Your task to perform on an android device: uninstall "Messenger Lite" Image 0: 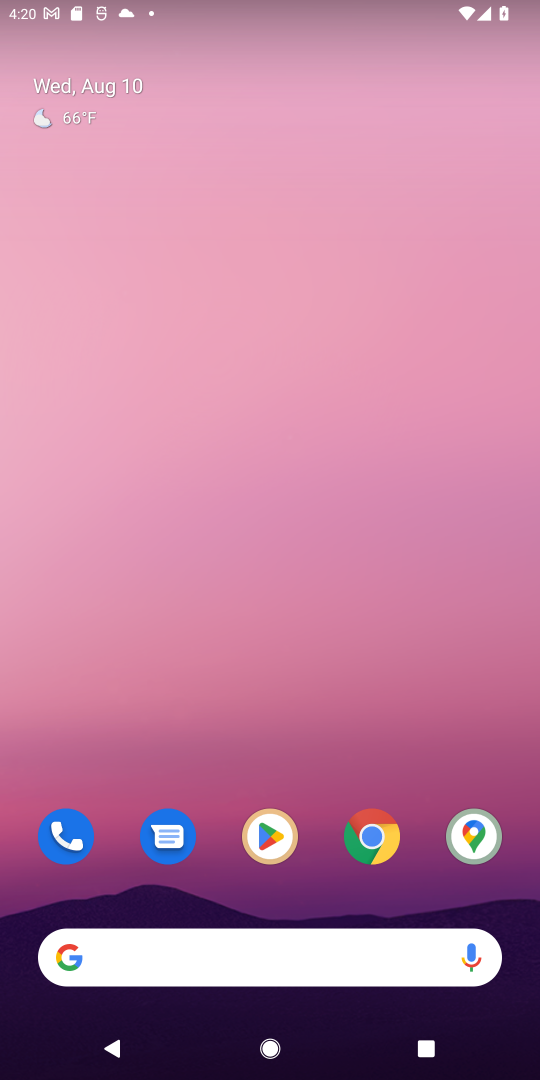
Step 0: drag from (187, 891) to (320, 210)
Your task to perform on an android device: uninstall "Messenger Lite" Image 1: 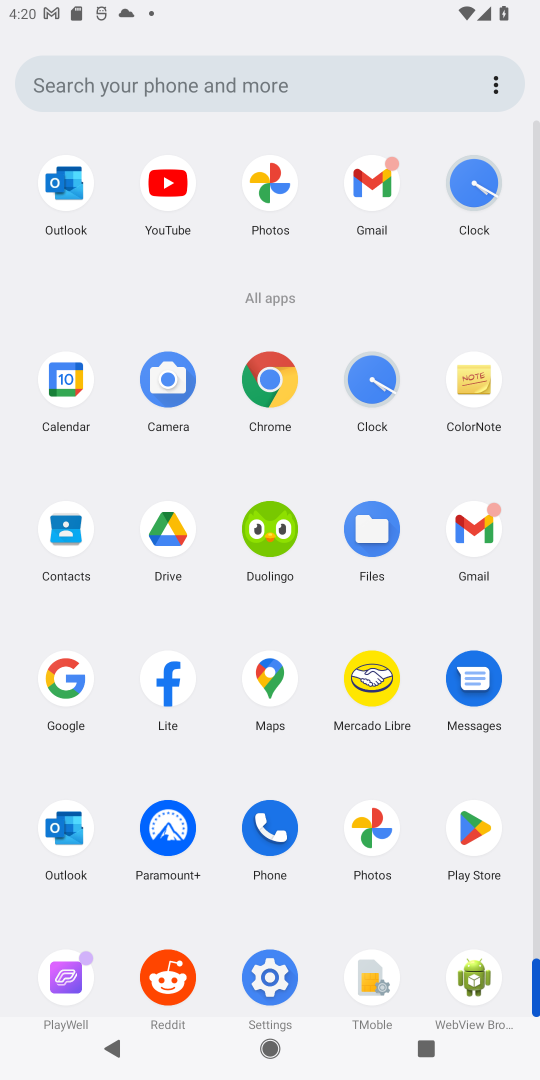
Step 1: drag from (163, 893) to (315, 257)
Your task to perform on an android device: uninstall "Messenger Lite" Image 2: 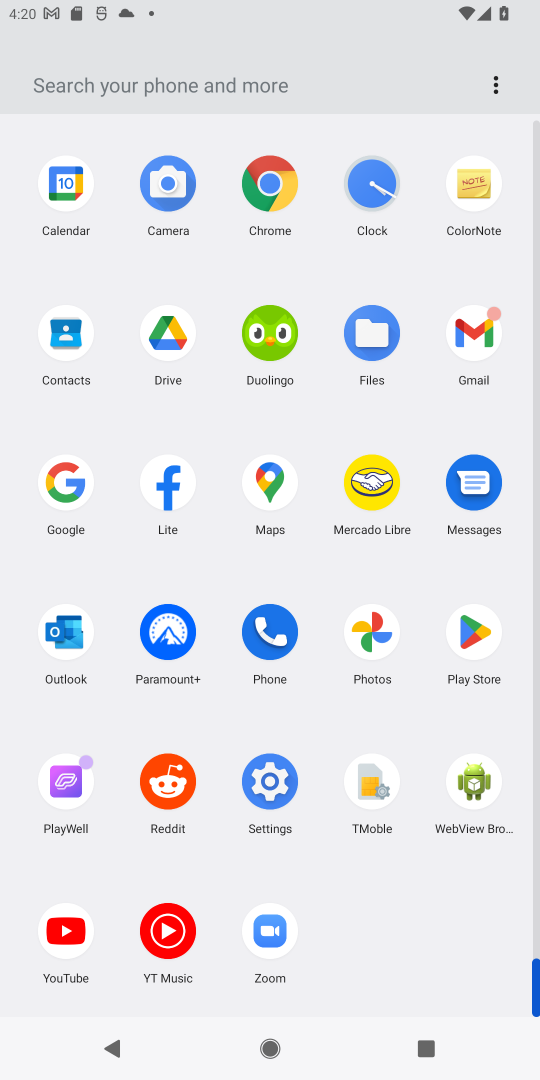
Step 2: click (479, 618)
Your task to perform on an android device: uninstall "Messenger Lite" Image 3: 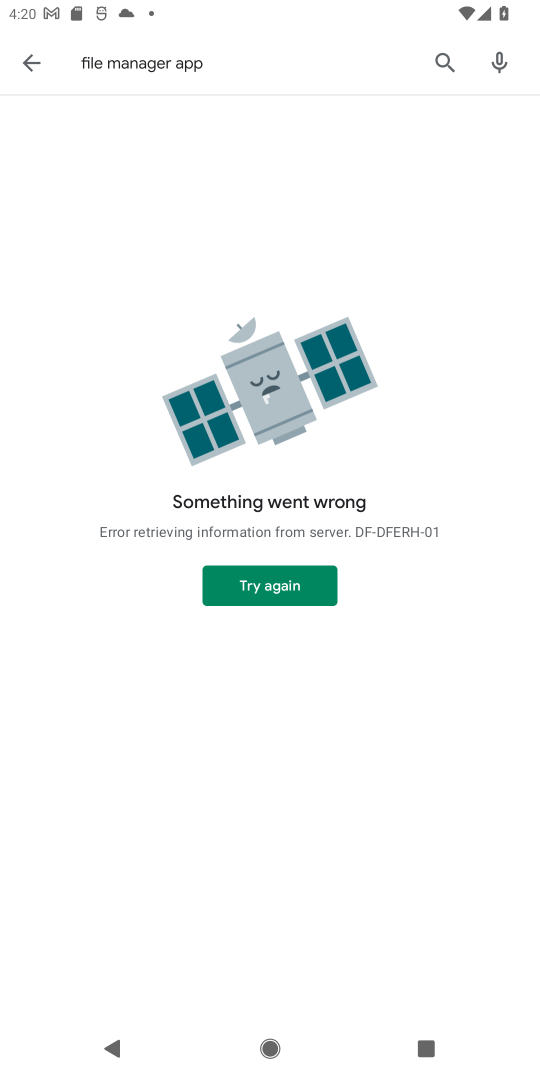
Step 3: click (21, 51)
Your task to perform on an android device: uninstall "Messenger Lite" Image 4: 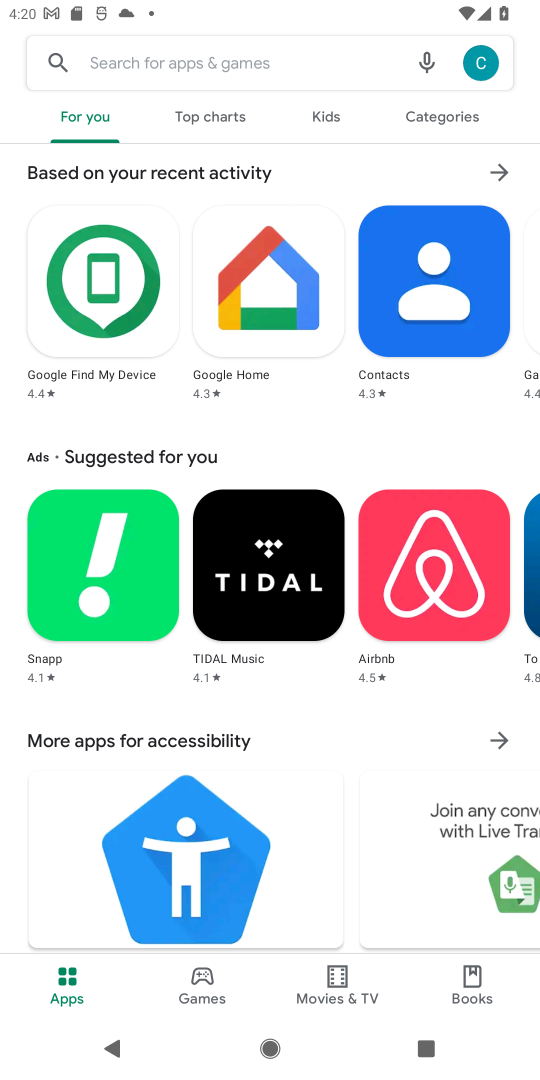
Step 4: click (225, 45)
Your task to perform on an android device: uninstall "Messenger Lite" Image 5: 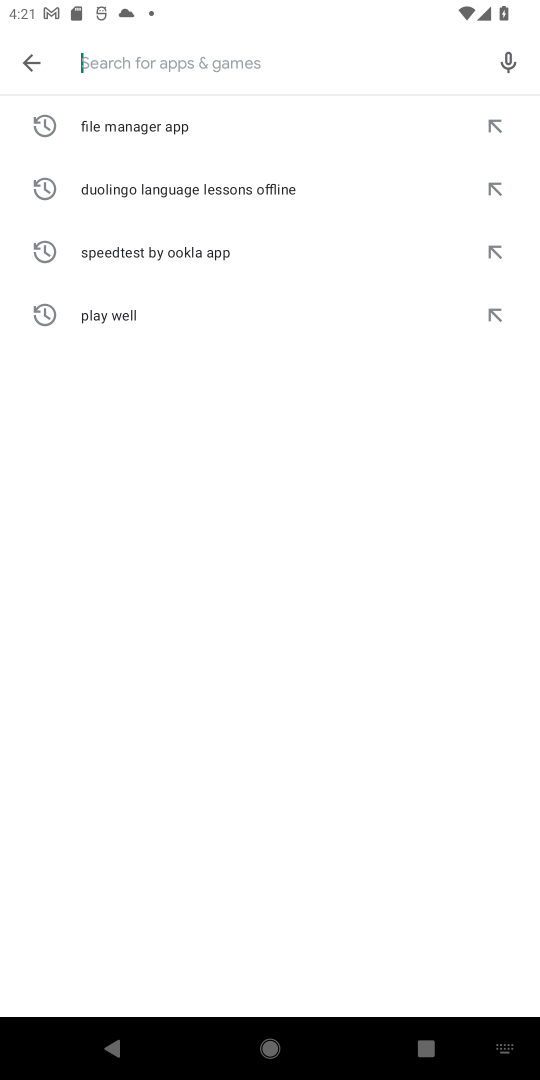
Step 5: type "messenger lite"
Your task to perform on an android device: uninstall "Messenger Lite" Image 6: 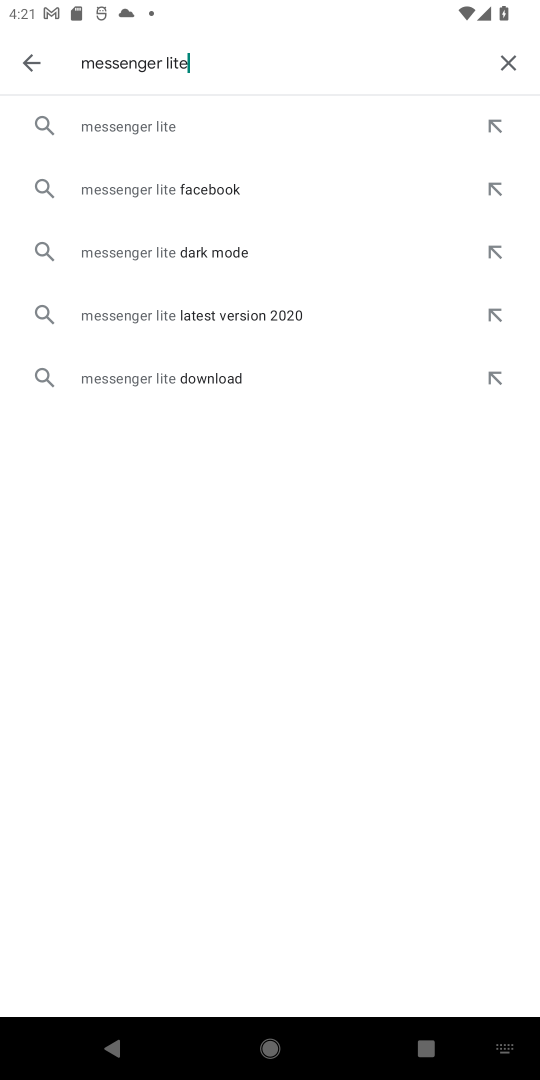
Step 6: click (141, 131)
Your task to perform on an android device: uninstall "Messenger Lite" Image 7: 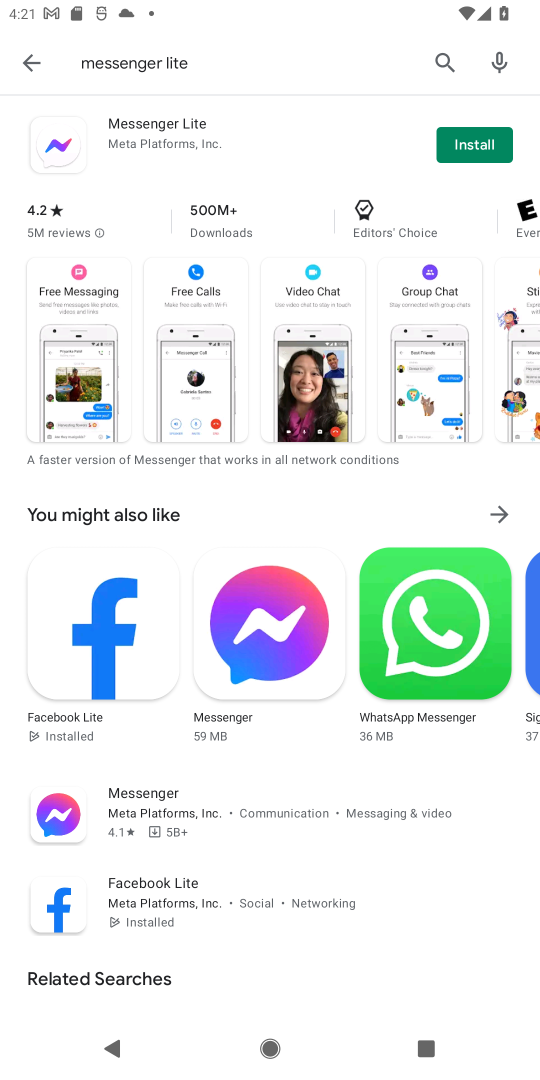
Step 7: task complete